Your task to perform on an android device: Open Google Chrome and click the shortcut for Amazon.com Image 0: 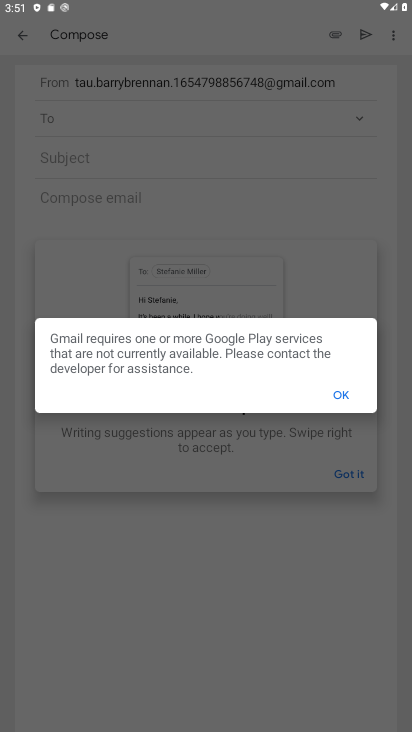
Step 0: press home button
Your task to perform on an android device: Open Google Chrome and click the shortcut for Amazon.com Image 1: 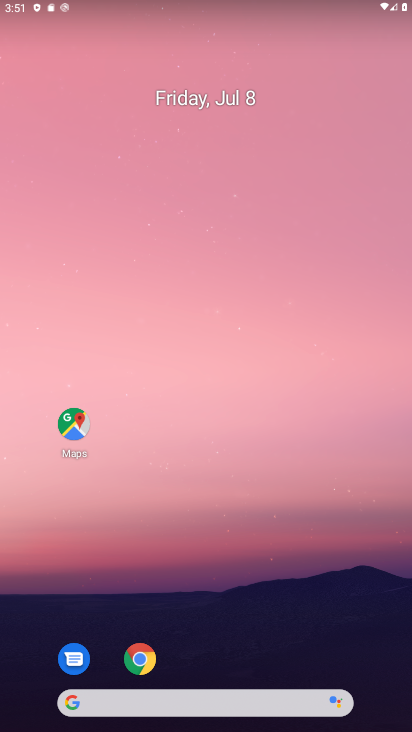
Step 1: click (144, 657)
Your task to perform on an android device: Open Google Chrome and click the shortcut for Amazon.com Image 2: 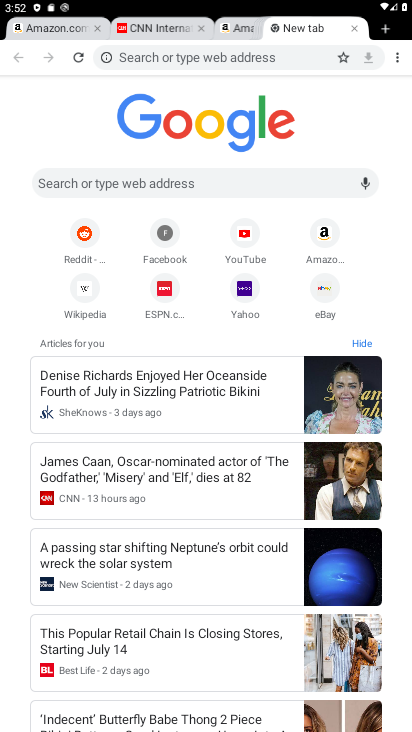
Step 2: click (317, 228)
Your task to perform on an android device: Open Google Chrome and click the shortcut for Amazon.com Image 3: 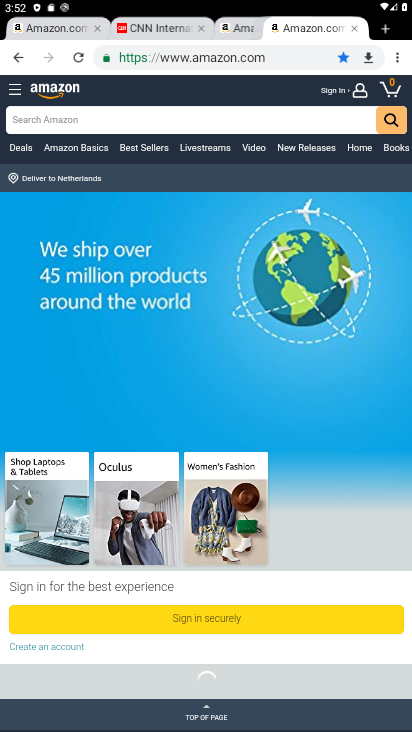
Step 3: task complete